Your task to perform on an android device: Go to display settings Image 0: 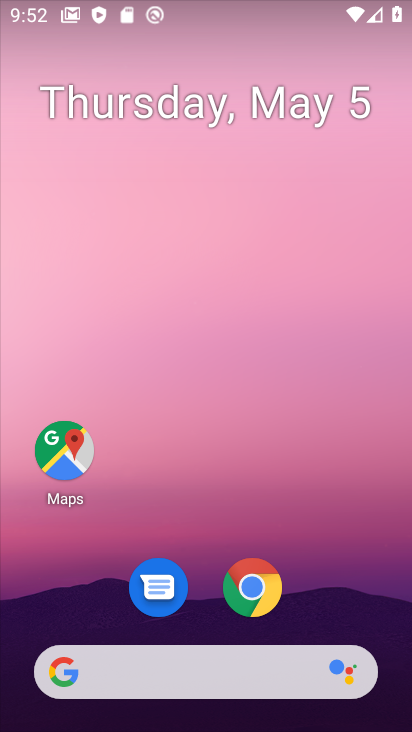
Step 0: drag from (189, 640) to (319, 77)
Your task to perform on an android device: Go to display settings Image 1: 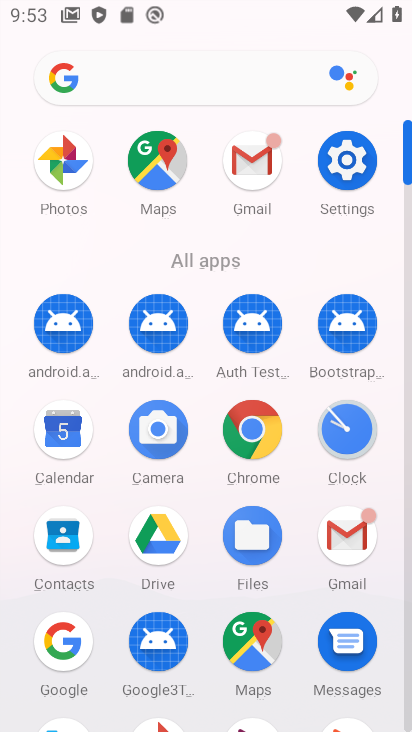
Step 1: drag from (165, 642) to (258, 271)
Your task to perform on an android device: Go to display settings Image 2: 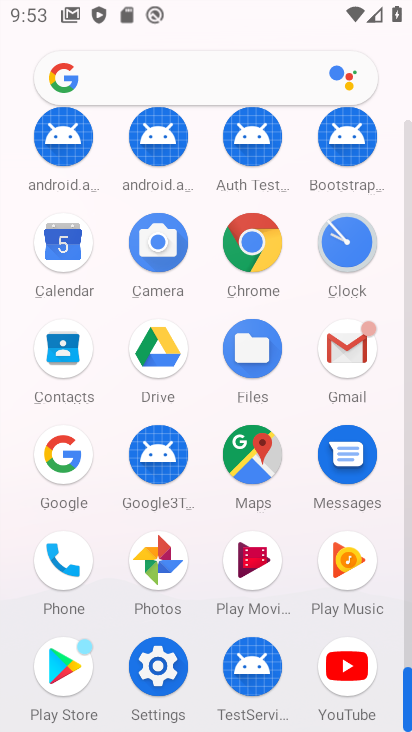
Step 2: click (155, 652)
Your task to perform on an android device: Go to display settings Image 3: 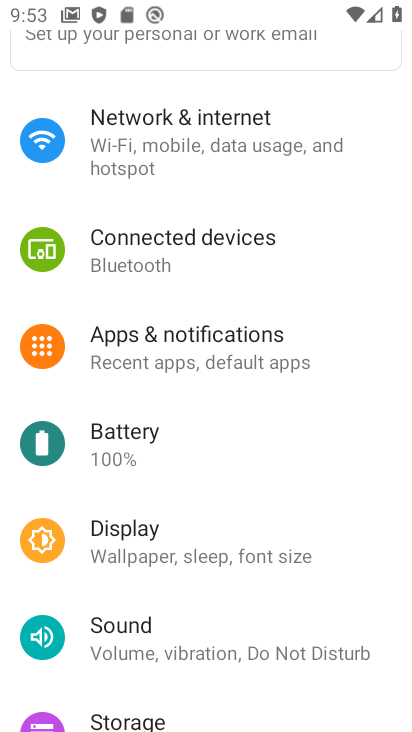
Step 3: click (171, 544)
Your task to perform on an android device: Go to display settings Image 4: 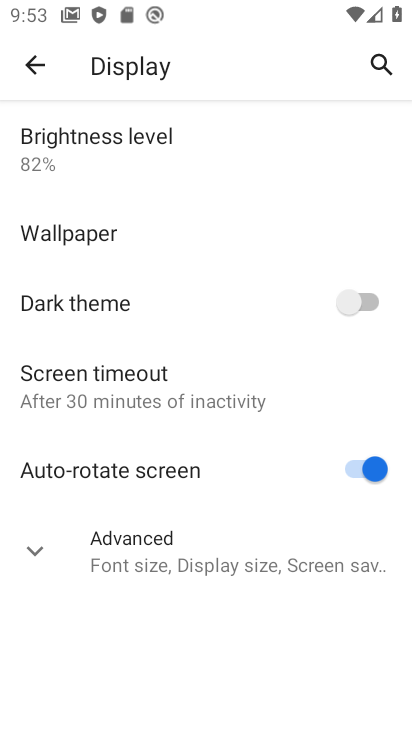
Step 4: task complete